Your task to perform on an android device: toggle notifications settings in the gmail app Image 0: 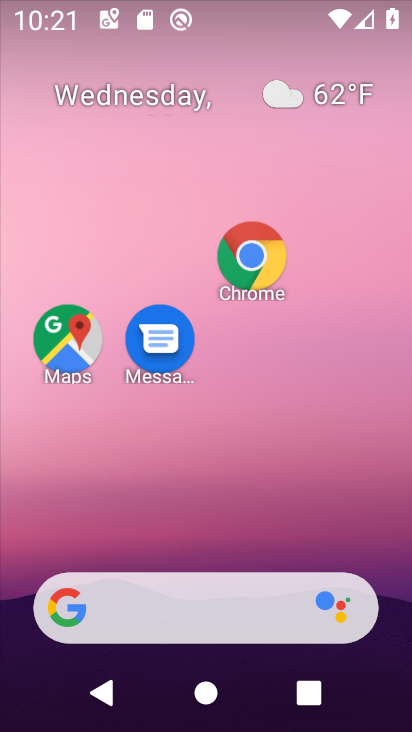
Step 0: drag from (290, 513) to (236, 79)
Your task to perform on an android device: toggle notifications settings in the gmail app Image 1: 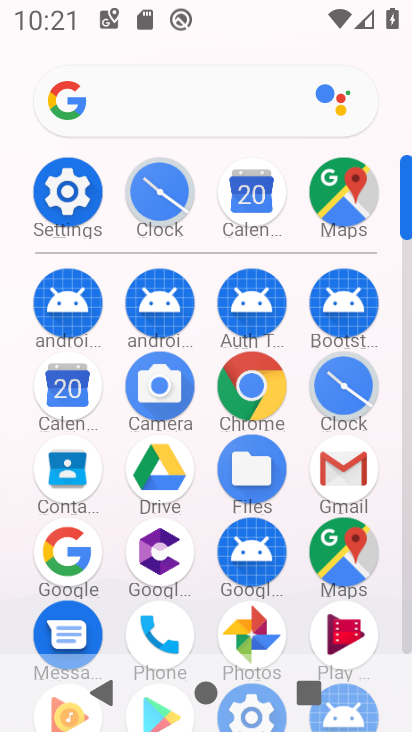
Step 1: click (354, 471)
Your task to perform on an android device: toggle notifications settings in the gmail app Image 2: 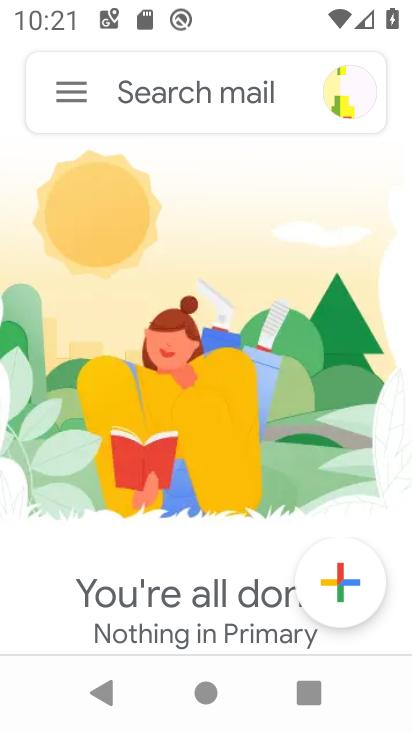
Step 2: click (74, 83)
Your task to perform on an android device: toggle notifications settings in the gmail app Image 3: 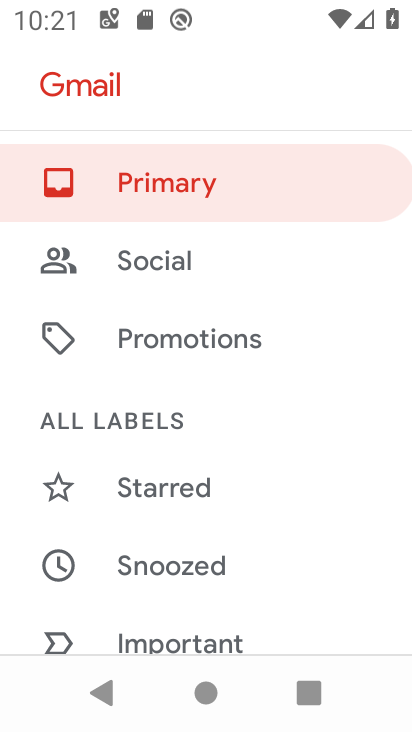
Step 3: drag from (224, 524) to (181, 98)
Your task to perform on an android device: toggle notifications settings in the gmail app Image 4: 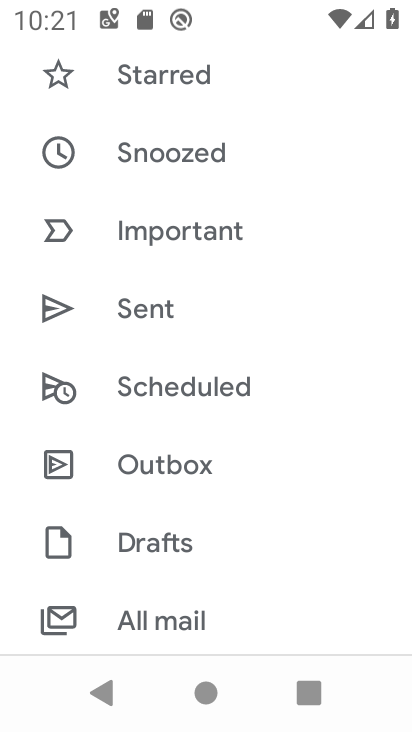
Step 4: drag from (182, 523) to (198, 203)
Your task to perform on an android device: toggle notifications settings in the gmail app Image 5: 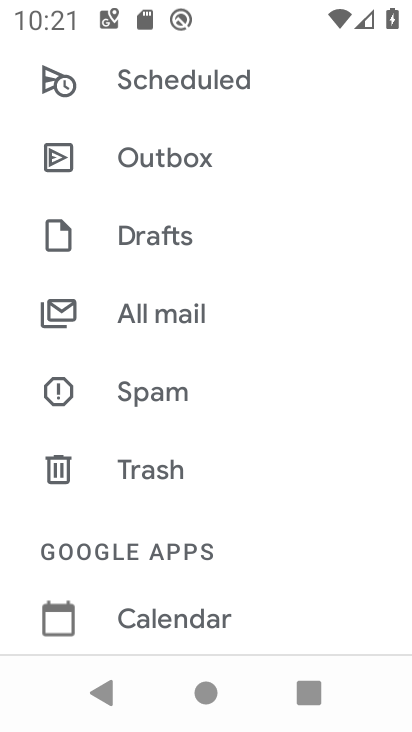
Step 5: drag from (205, 485) to (283, 374)
Your task to perform on an android device: toggle notifications settings in the gmail app Image 6: 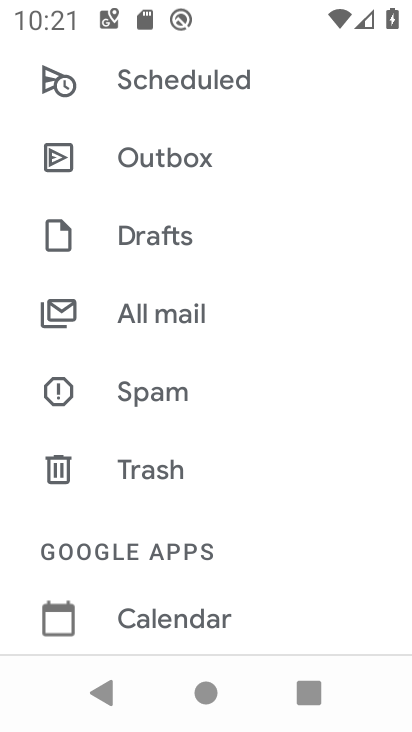
Step 6: drag from (247, 572) to (233, 161)
Your task to perform on an android device: toggle notifications settings in the gmail app Image 7: 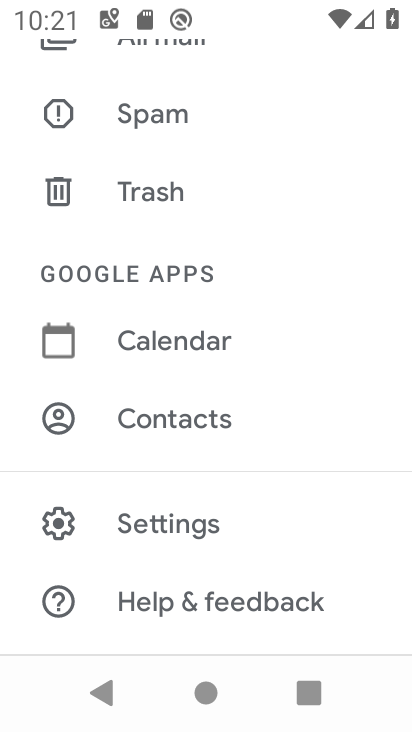
Step 7: click (135, 536)
Your task to perform on an android device: toggle notifications settings in the gmail app Image 8: 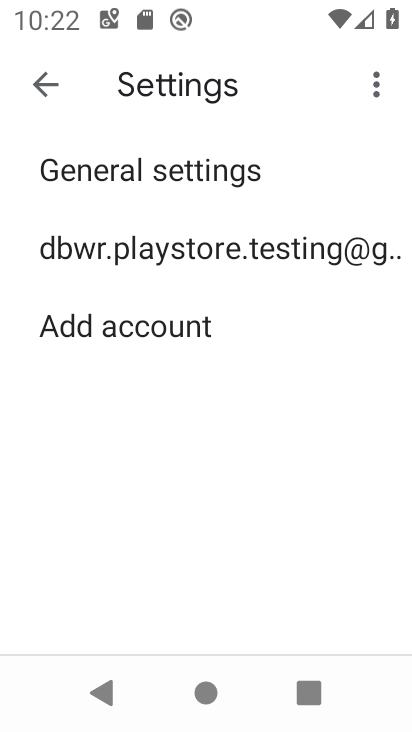
Step 8: click (167, 246)
Your task to perform on an android device: toggle notifications settings in the gmail app Image 9: 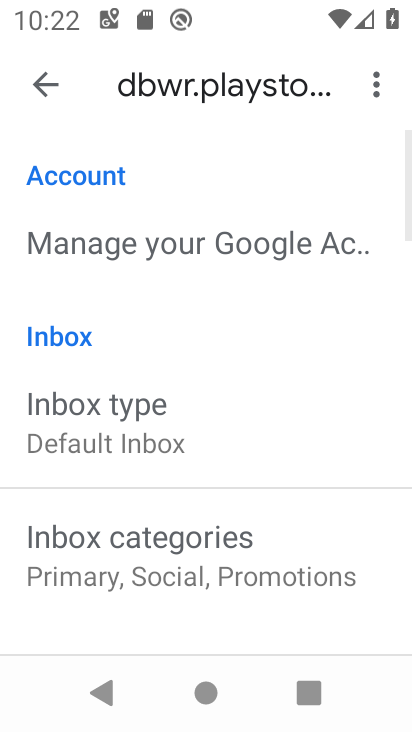
Step 9: drag from (255, 583) to (248, 271)
Your task to perform on an android device: toggle notifications settings in the gmail app Image 10: 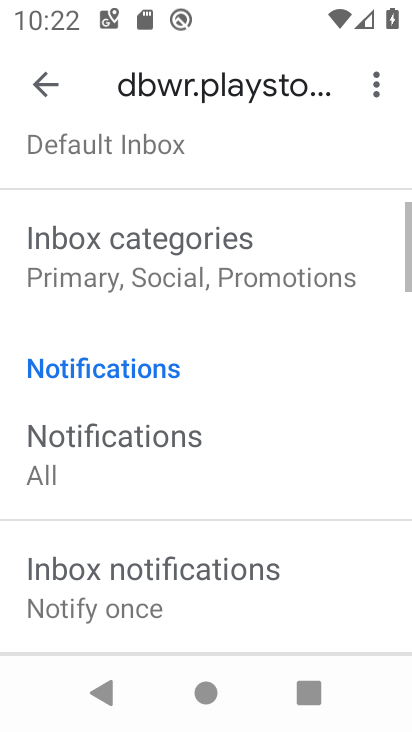
Step 10: click (140, 466)
Your task to perform on an android device: toggle notifications settings in the gmail app Image 11: 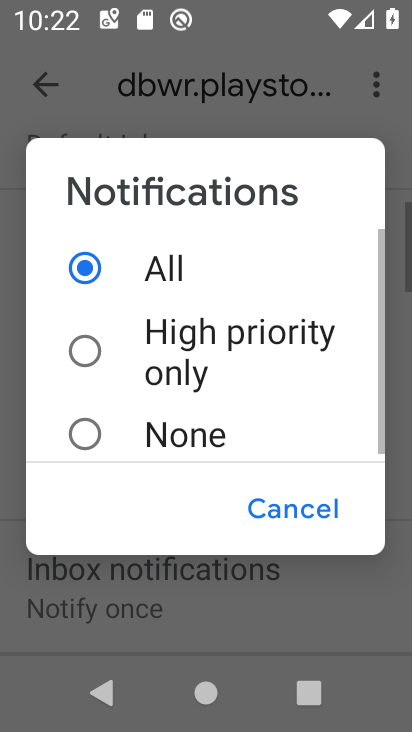
Step 11: click (89, 435)
Your task to perform on an android device: toggle notifications settings in the gmail app Image 12: 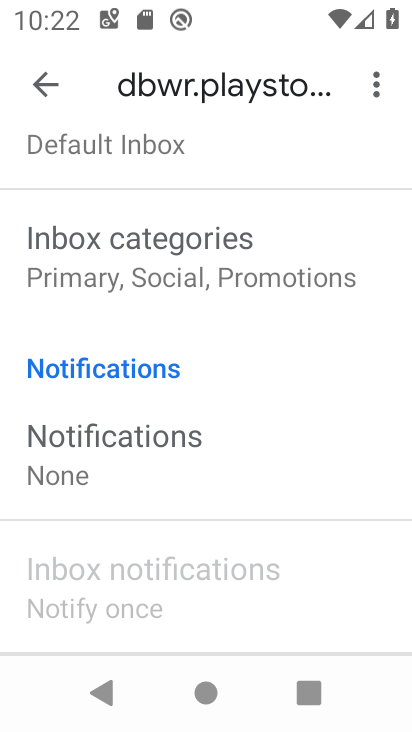
Step 12: task complete